Your task to perform on an android device: Open settings on Google Maps Image 0: 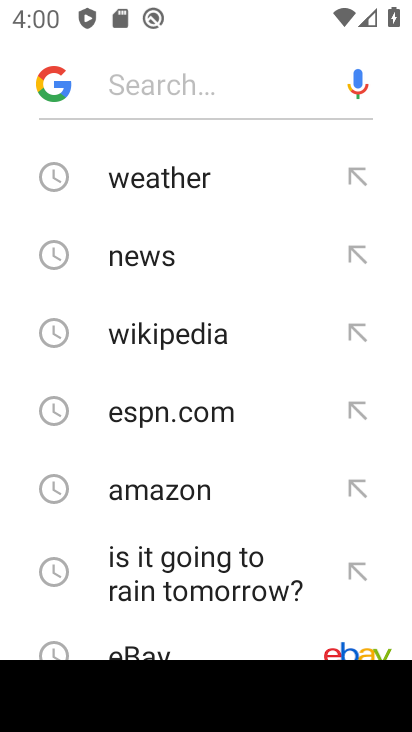
Step 0: press home button
Your task to perform on an android device: Open settings on Google Maps Image 1: 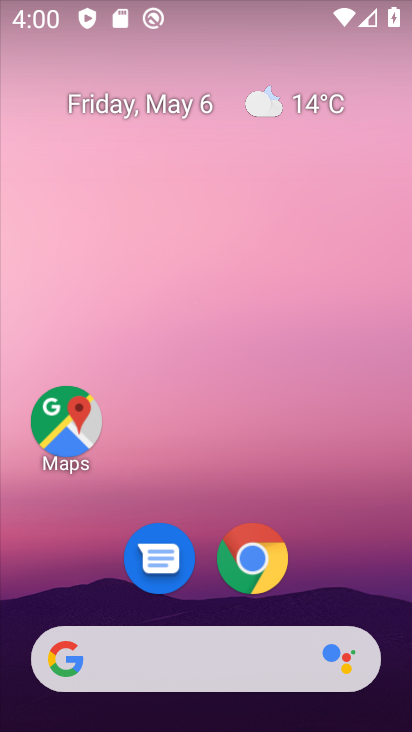
Step 1: drag from (332, 645) to (393, 50)
Your task to perform on an android device: Open settings on Google Maps Image 2: 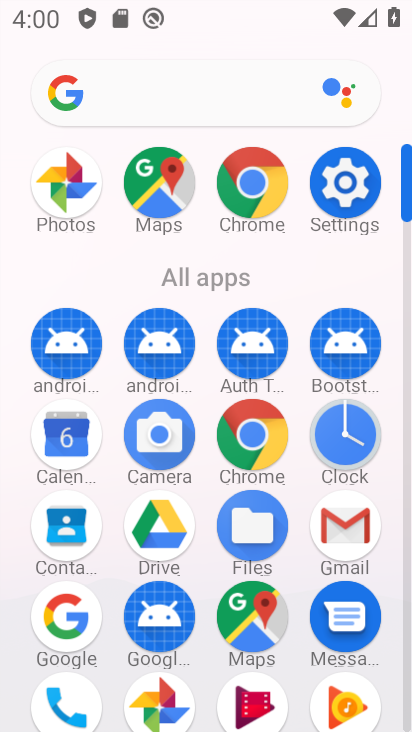
Step 2: click (267, 609)
Your task to perform on an android device: Open settings on Google Maps Image 3: 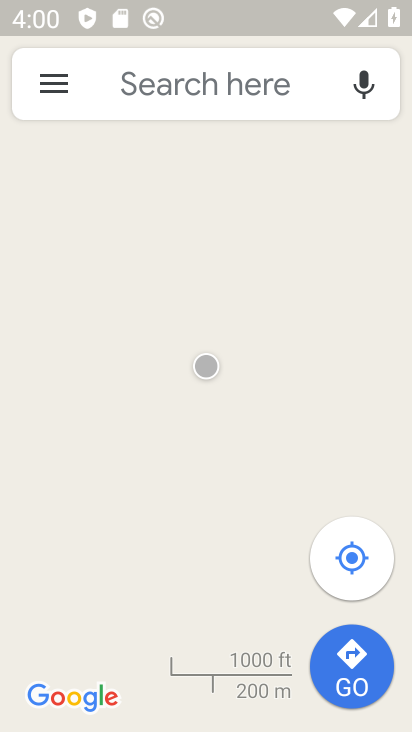
Step 3: click (51, 83)
Your task to perform on an android device: Open settings on Google Maps Image 4: 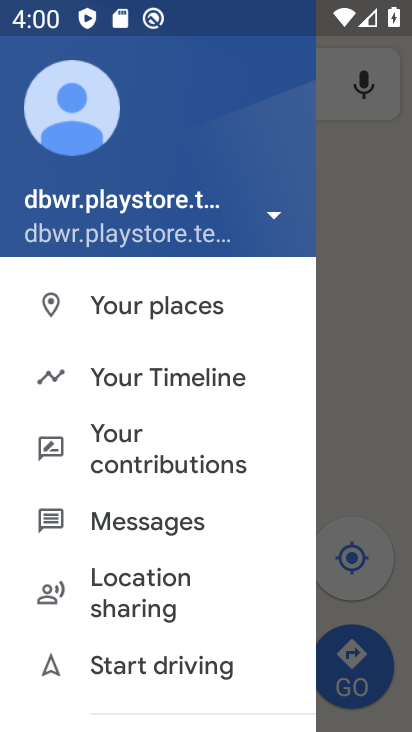
Step 4: click (211, 377)
Your task to perform on an android device: Open settings on Google Maps Image 5: 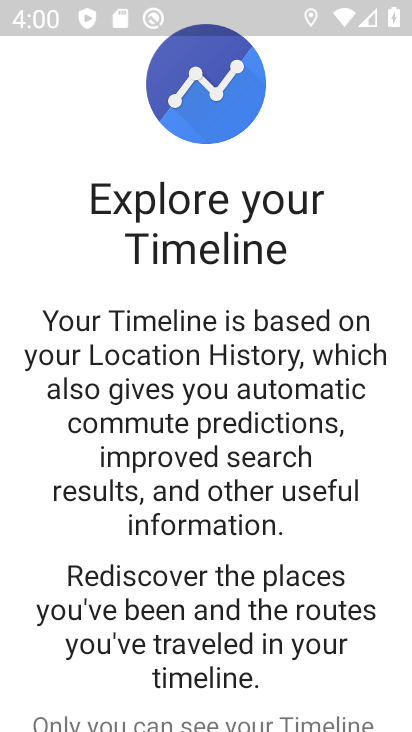
Step 5: drag from (303, 645) to (292, 93)
Your task to perform on an android device: Open settings on Google Maps Image 6: 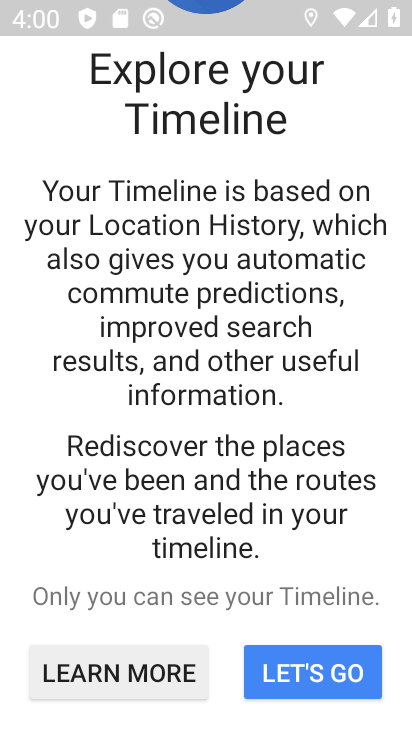
Step 6: click (320, 680)
Your task to perform on an android device: Open settings on Google Maps Image 7: 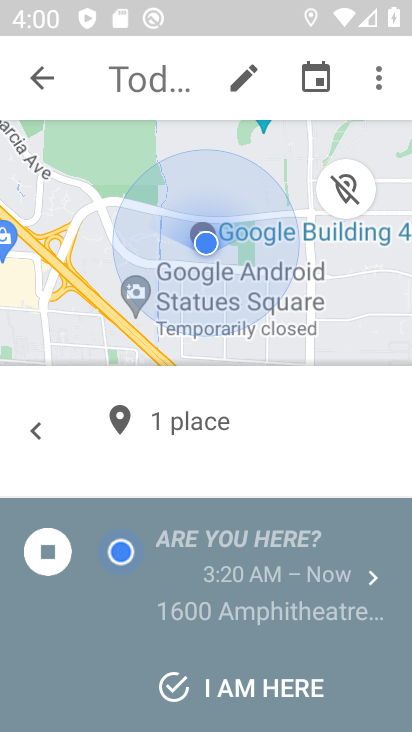
Step 7: click (373, 69)
Your task to perform on an android device: Open settings on Google Maps Image 8: 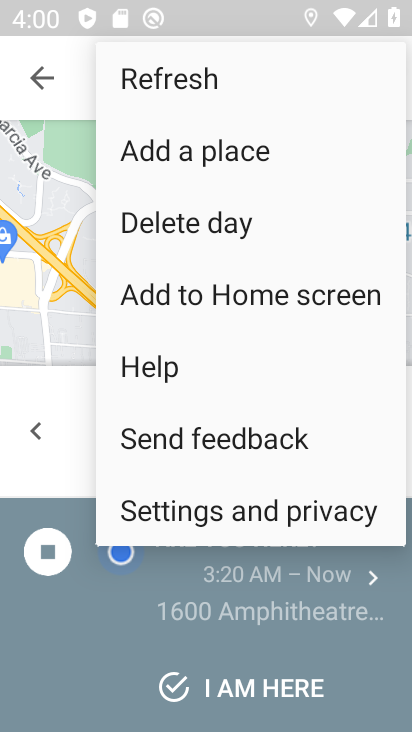
Step 8: click (277, 499)
Your task to perform on an android device: Open settings on Google Maps Image 9: 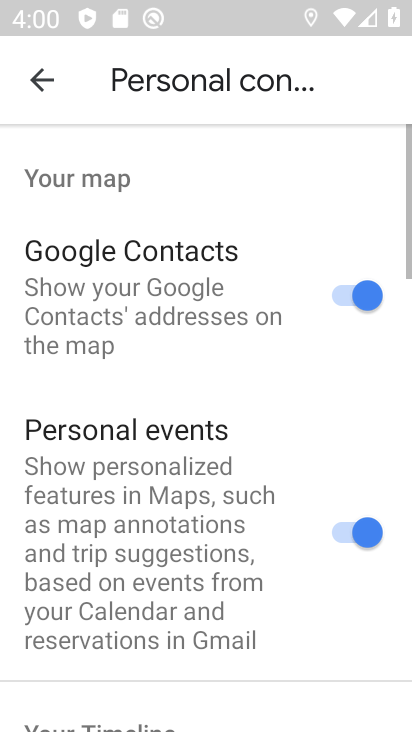
Step 9: task complete